Your task to perform on an android device: Open calendar and show me the fourth week of next month Image 0: 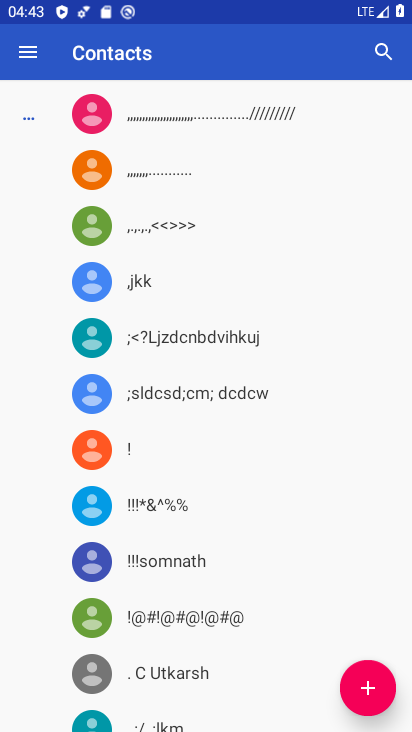
Step 0: press back button
Your task to perform on an android device: Open calendar and show me the fourth week of next month Image 1: 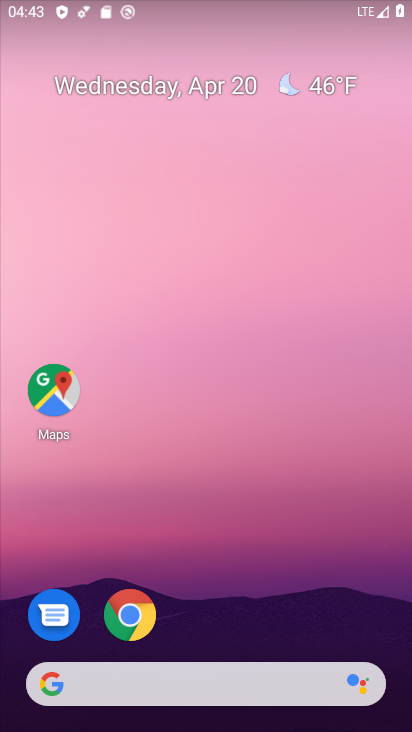
Step 1: drag from (230, 551) to (264, 72)
Your task to perform on an android device: Open calendar and show me the fourth week of next month Image 2: 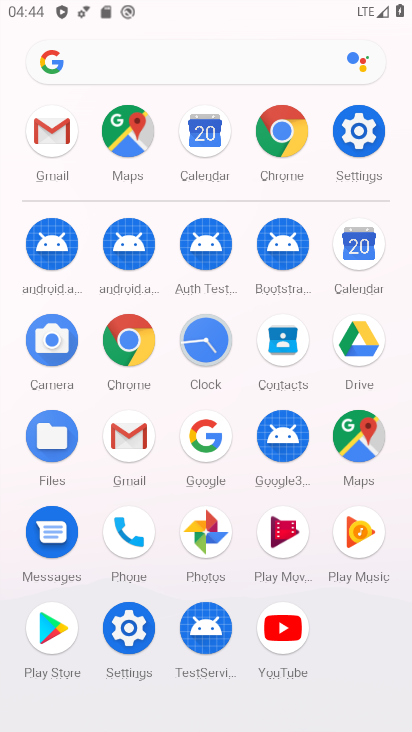
Step 2: click (362, 248)
Your task to perform on an android device: Open calendar and show me the fourth week of next month Image 3: 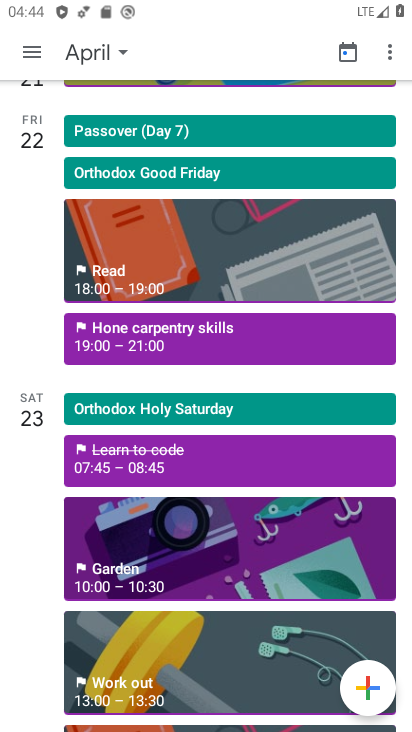
Step 3: click (112, 53)
Your task to perform on an android device: Open calendar and show me the fourth week of next month Image 4: 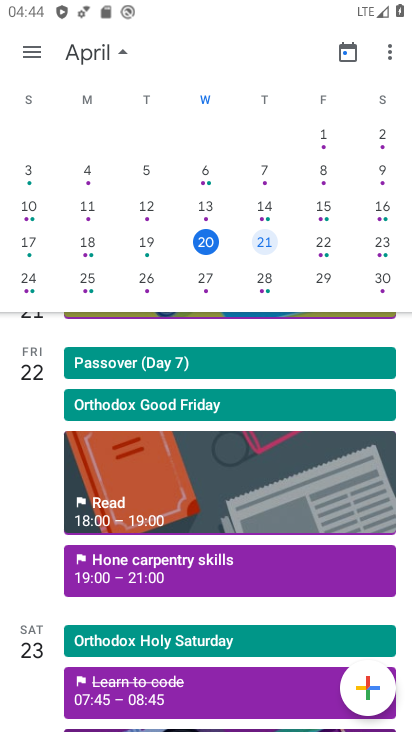
Step 4: drag from (372, 225) to (44, 210)
Your task to perform on an android device: Open calendar and show me the fourth week of next month Image 5: 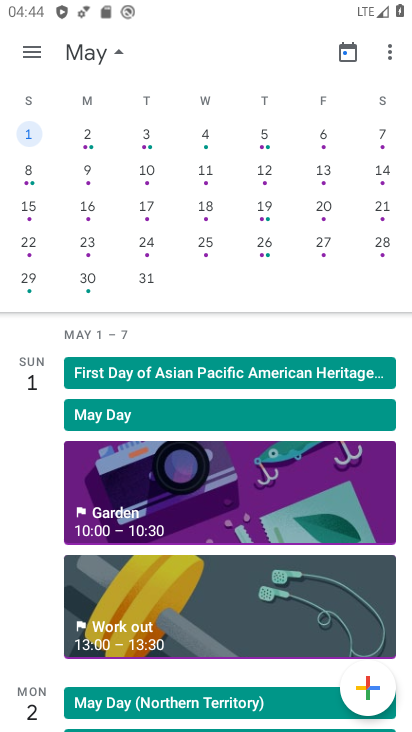
Step 5: click (86, 241)
Your task to perform on an android device: Open calendar and show me the fourth week of next month Image 6: 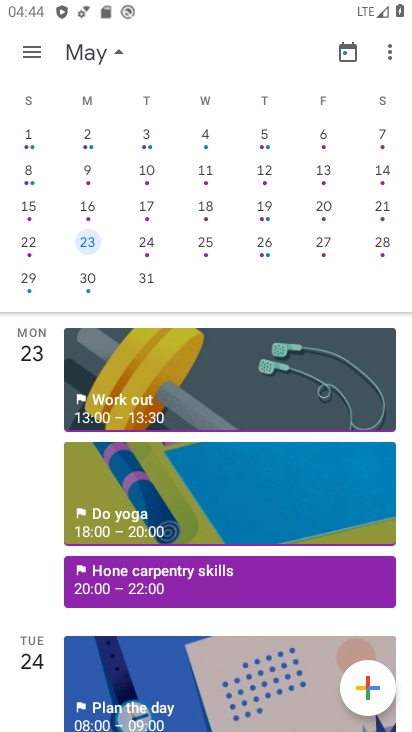
Step 6: task complete